Your task to perform on an android device: Search for Mexican restaurants on Maps Image 0: 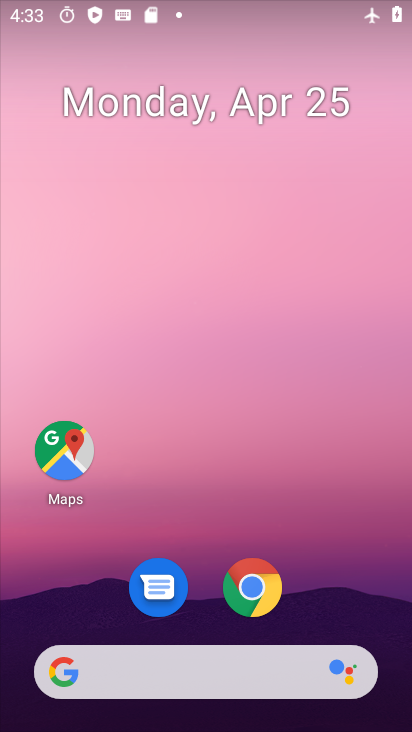
Step 0: drag from (370, 447) to (375, 133)
Your task to perform on an android device: Search for Mexican restaurants on Maps Image 1: 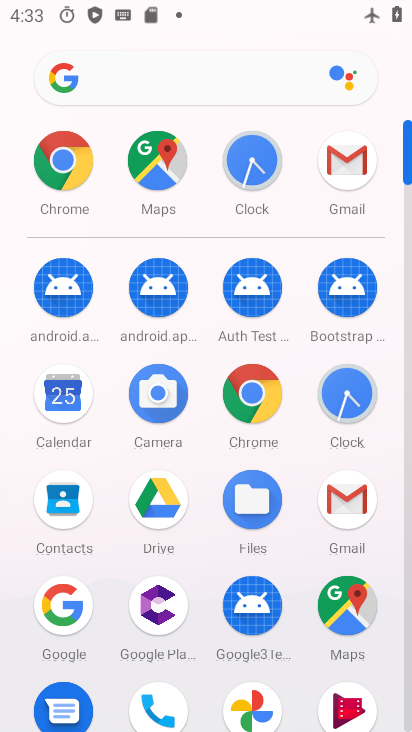
Step 1: click (340, 603)
Your task to perform on an android device: Search for Mexican restaurants on Maps Image 2: 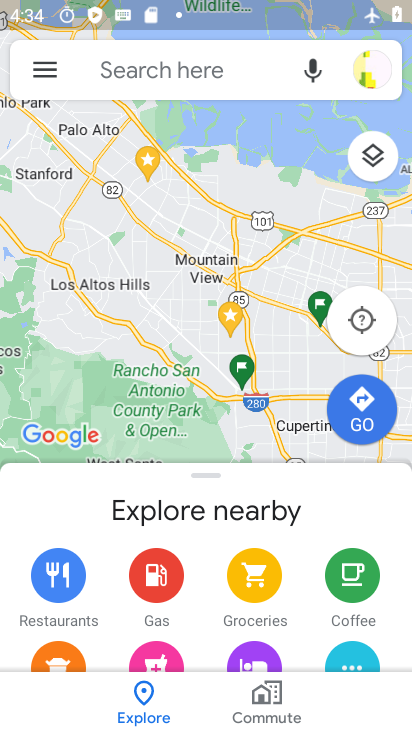
Step 2: click (194, 61)
Your task to perform on an android device: Search for Mexican restaurants on Maps Image 3: 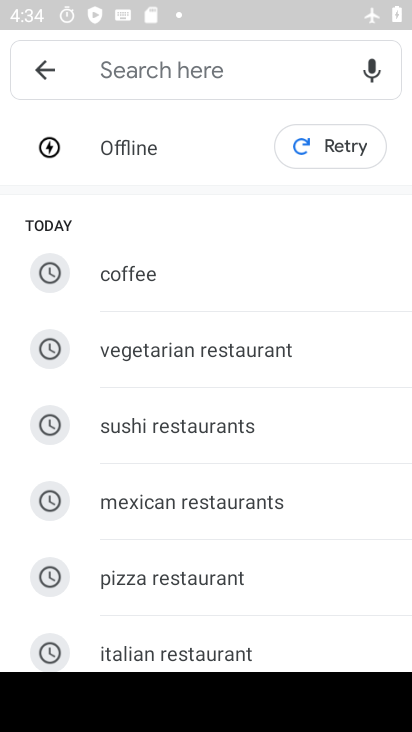
Step 3: click (200, 497)
Your task to perform on an android device: Search for Mexican restaurants on Maps Image 4: 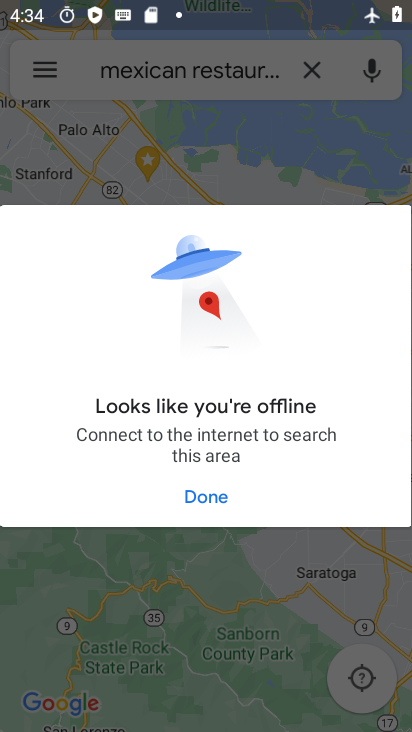
Step 4: task complete